Your task to perform on an android device: Open the calendar and show me this week's events? Image 0: 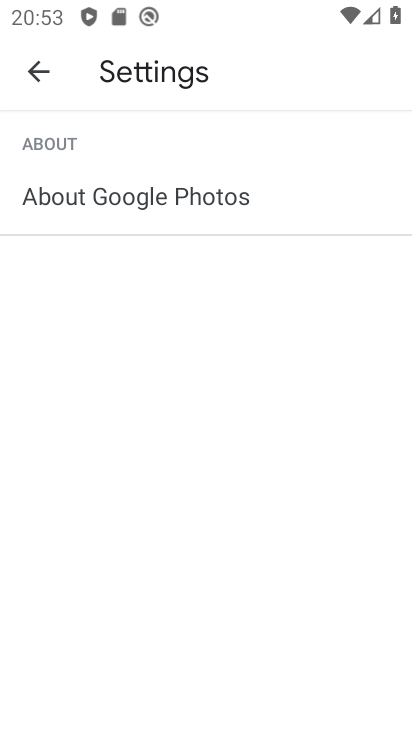
Step 0: click (34, 70)
Your task to perform on an android device: Open the calendar and show me this week's events? Image 1: 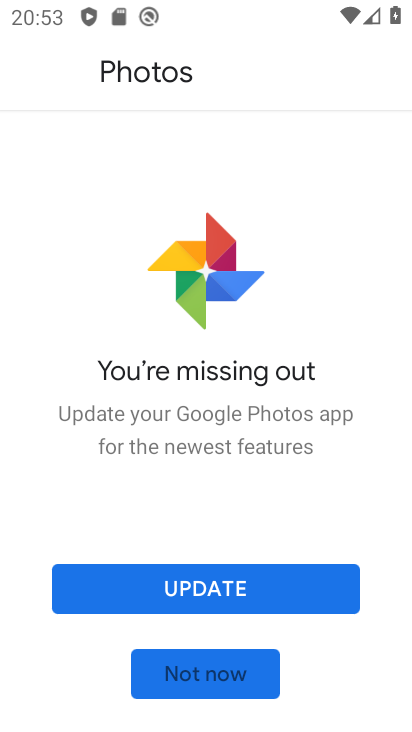
Step 1: press back button
Your task to perform on an android device: Open the calendar and show me this week's events? Image 2: 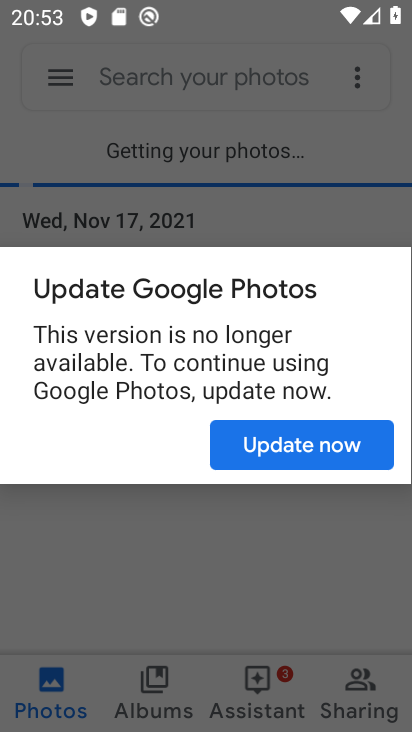
Step 2: press home button
Your task to perform on an android device: Open the calendar and show me this week's events? Image 3: 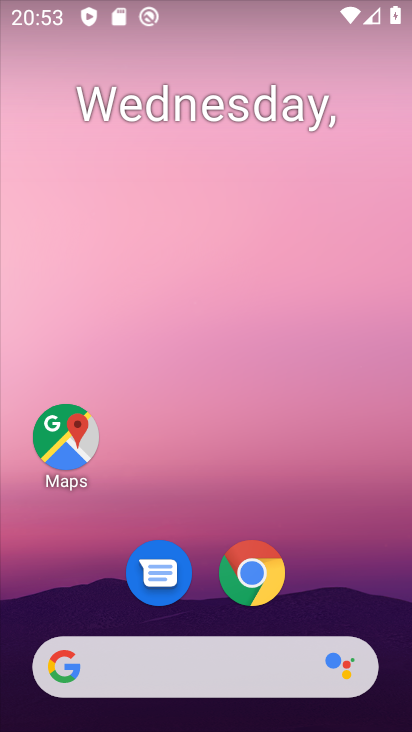
Step 3: click (325, 244)
Your task to perform on an android device: Open the calendar and show me this week's events? Image 4: 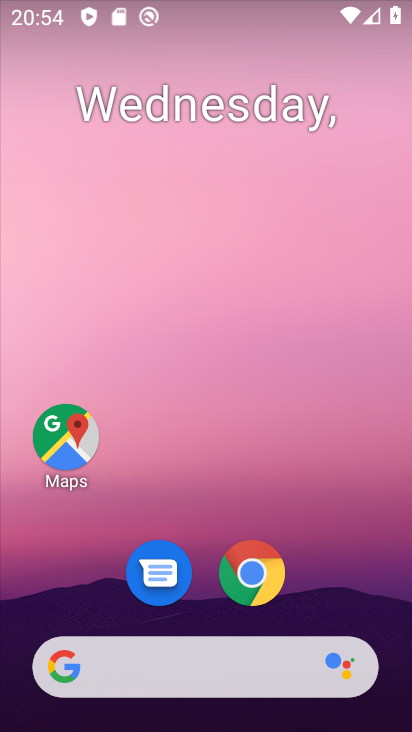
Step 4: drag from (354, 204) to (351, 163)
Your task to perform on an android device: Open the calendar and show me this week's events? Image 5: 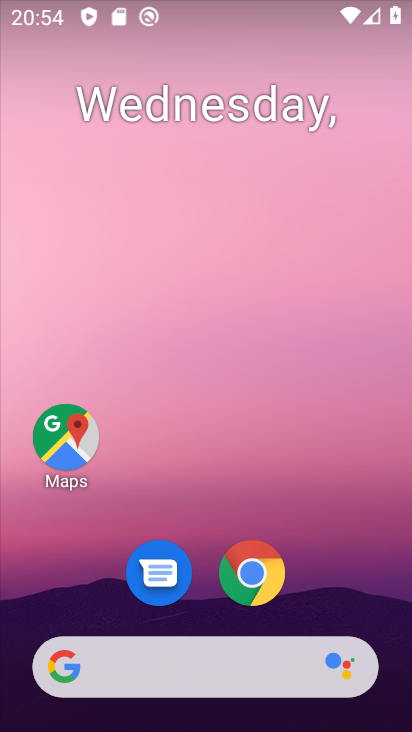
Step 5: drag from (373, 533) to (375, 123)
Your task to perform on an android device: Open the calendar and show me this week's events? Image 6: 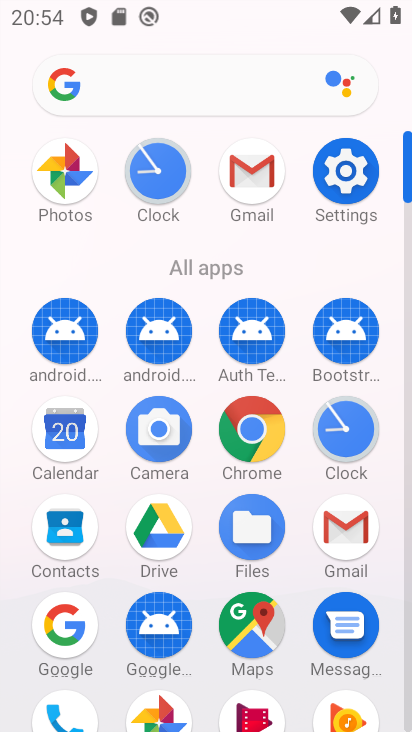
Step 6: click (70, 434)
Your task to perform on an android device: Open the calendar and show me this week's events? Image 7: 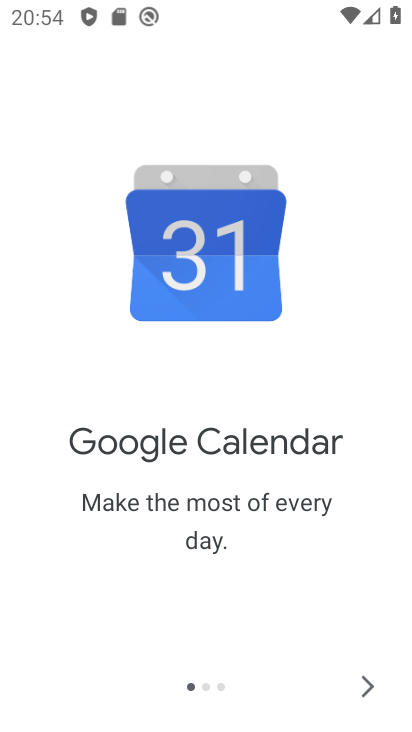
Step 7: click (360, 684)
Your task to perform on an android device: Open the calendar and show me this week's events? Image 8: 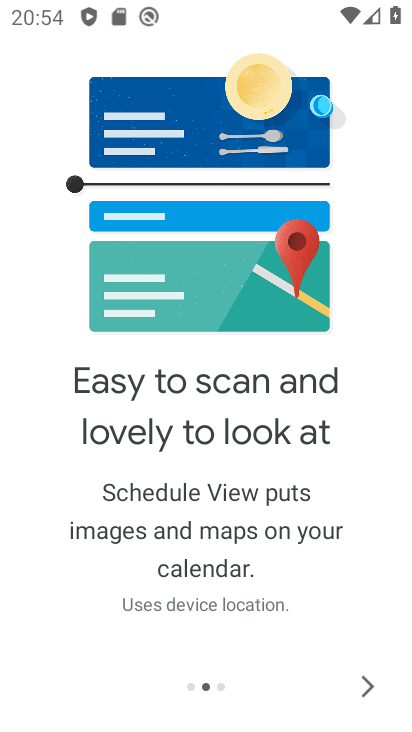
Step 8: click (367, 680)
Your task to perform on an android device: Open the calendar and show me this week's events? Image 9: 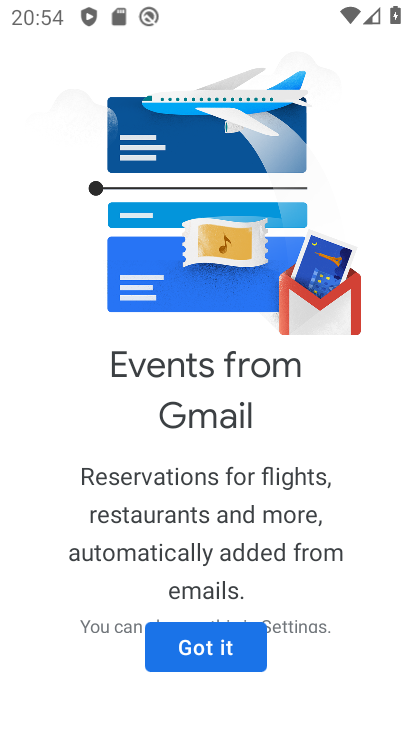
Step 9: click (203, 655)
Your task to perform on an android device: Open the calendar and show me this week's events? Image 10: 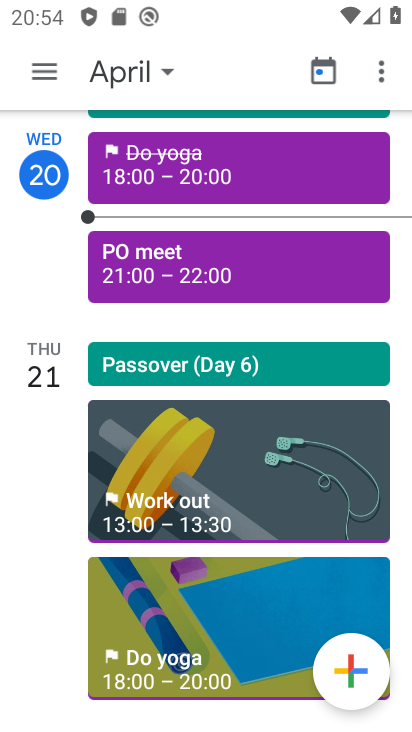
Step 10: click (160, 68)
Your task to perform on an android device: Open the calendar and show me this week's events? Image 11: 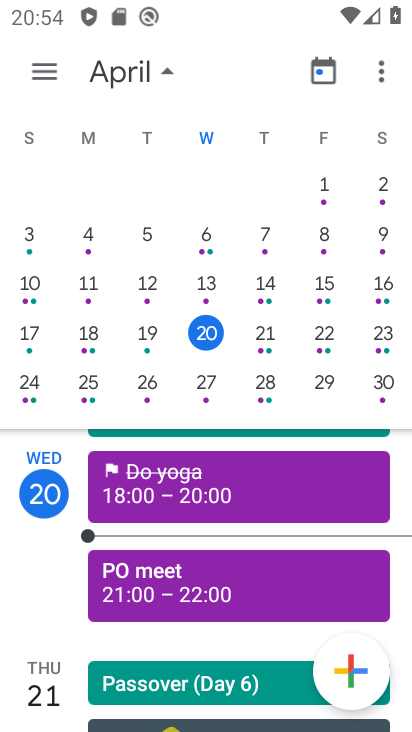
Step 11: click (204, 381)
Your task to perform on an android device: Open the calendar and show me this week's events? Image 12: 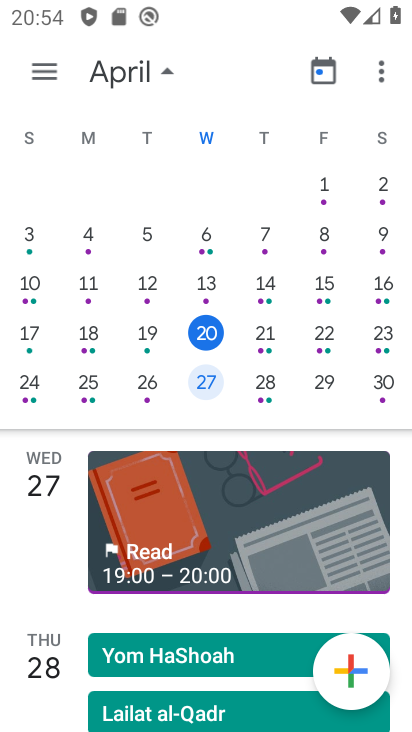
Step 12: task complete